Your task to perform on an android device: Look up the best rated Nike shoes on Nike.com Image 0: 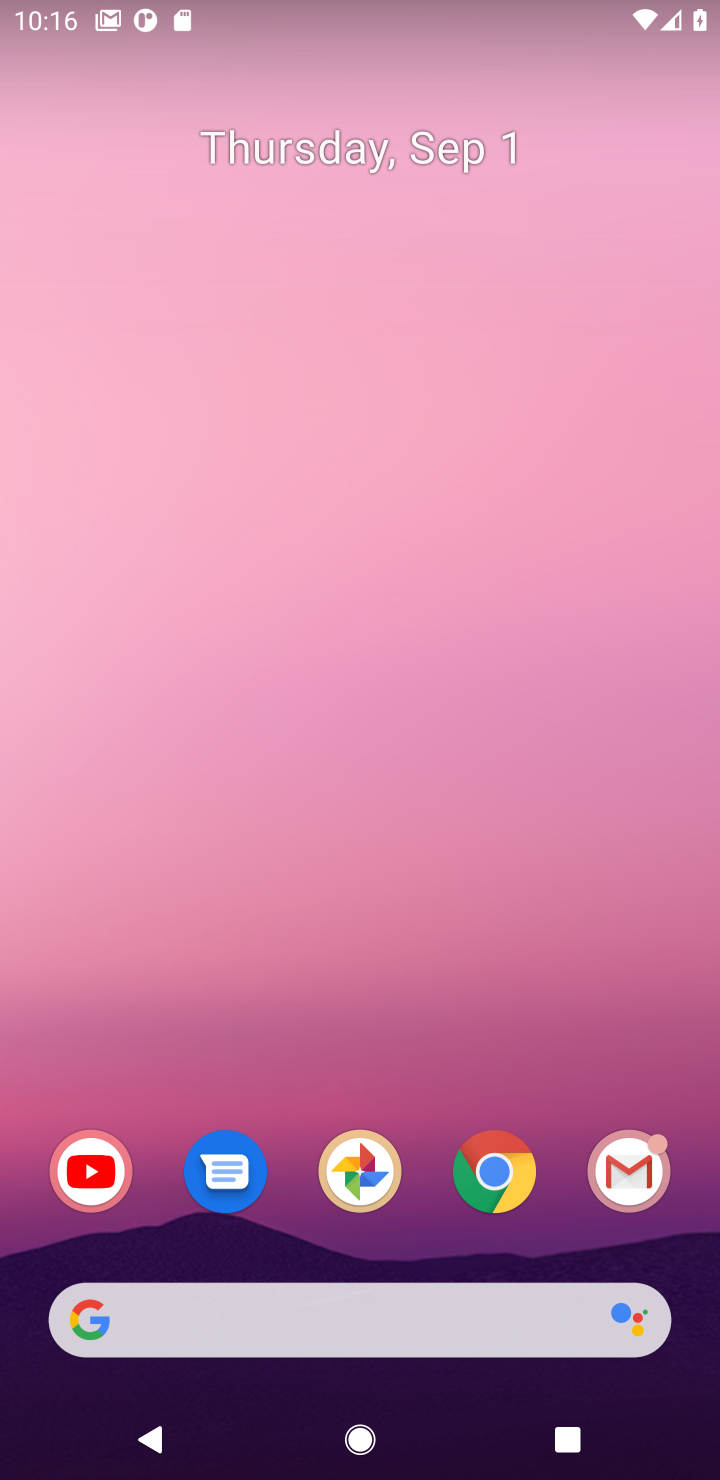
Step 0: press home button
Your task to perform on an android device: Look up the best rated Nike shoes on Nike.com Image 1: 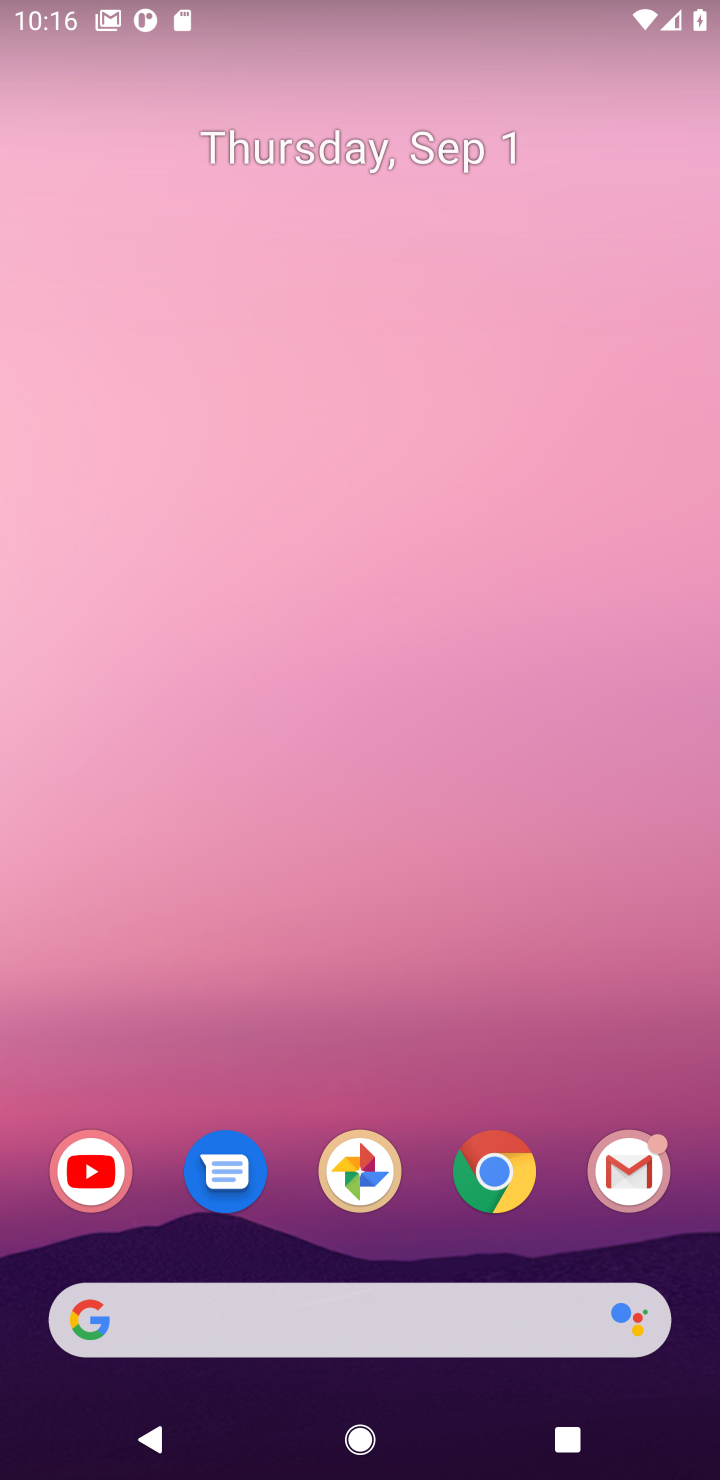
Step 1: click (302, 958)
Your task to perform on an android device: Look up the best rated Nike shoes on Nike.com Image 2: 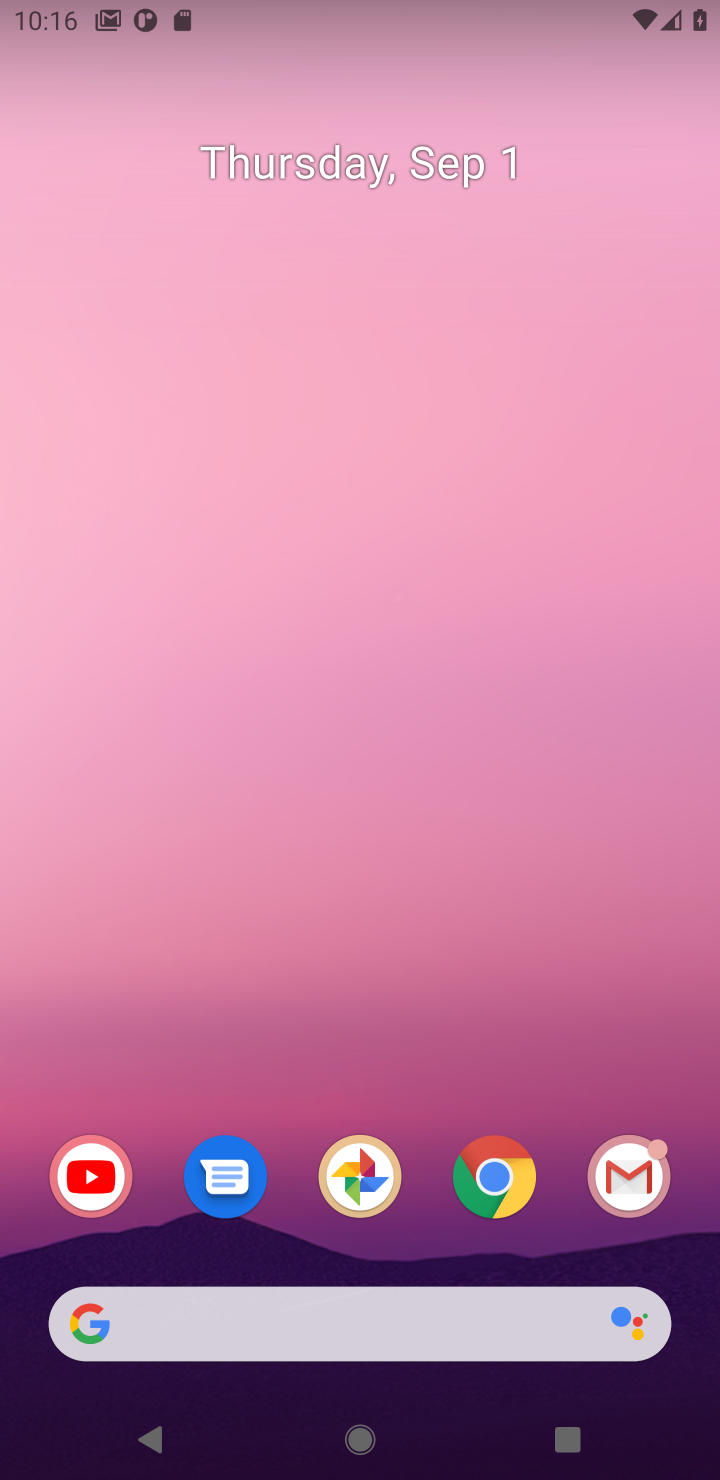
Step 2: press home button
Your task to perform on an android device: Look up the best rated Nike shoes on Nike.com Image 3: 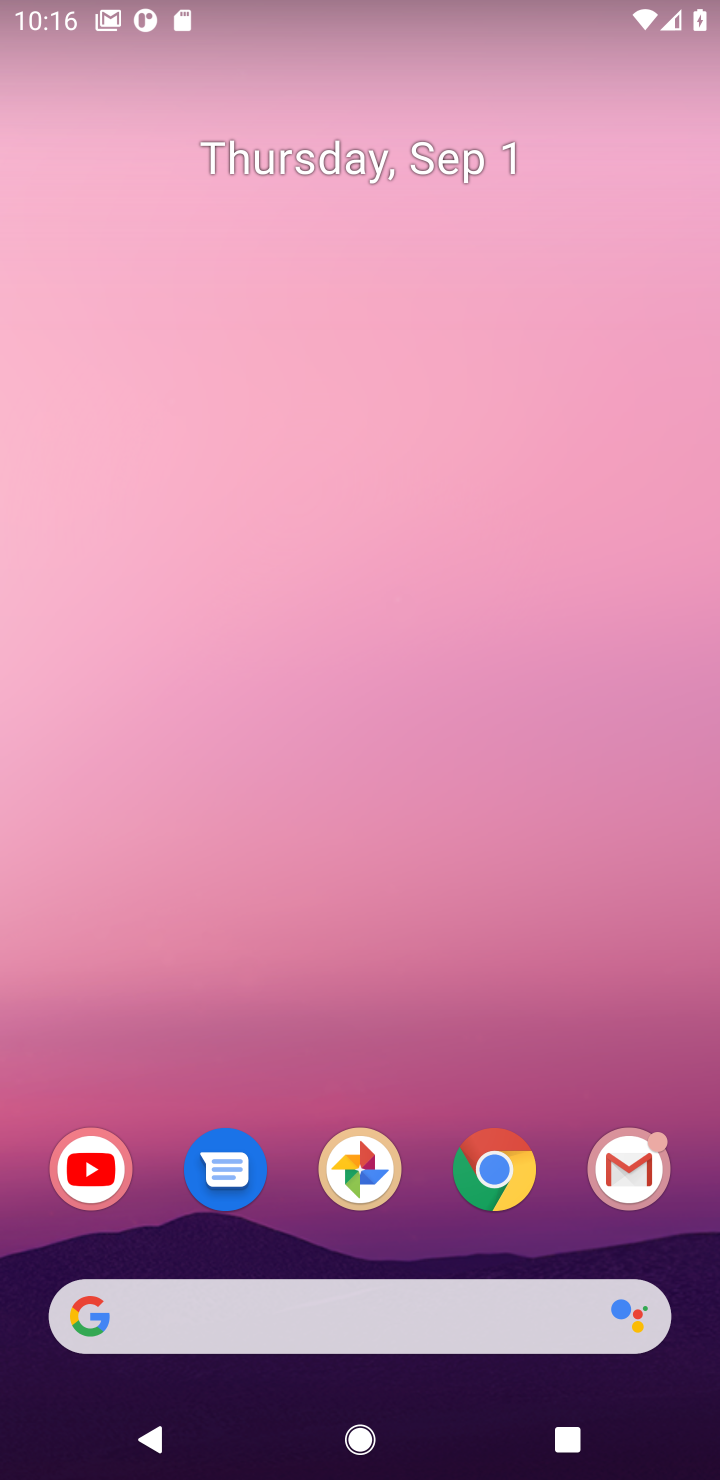
Step 3: drag from (405, 1137) to (395, 18)
Your task to perform on an android device: Look up the best rated Nike shoes on Nike.com Image 4: 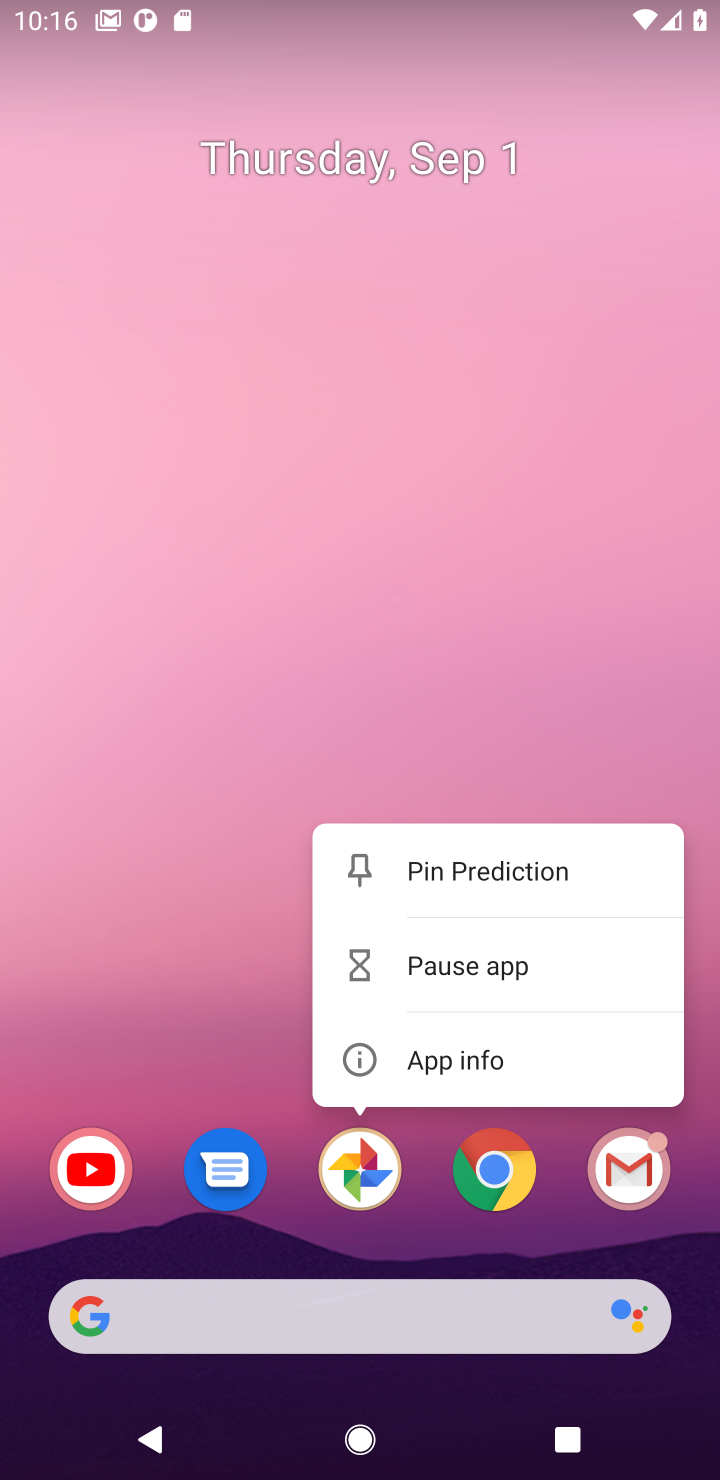
Step 4: click (232, 1084)
Your task to perform on an android device: Look up the best rated Nike shoes on Nike.com Image 5: 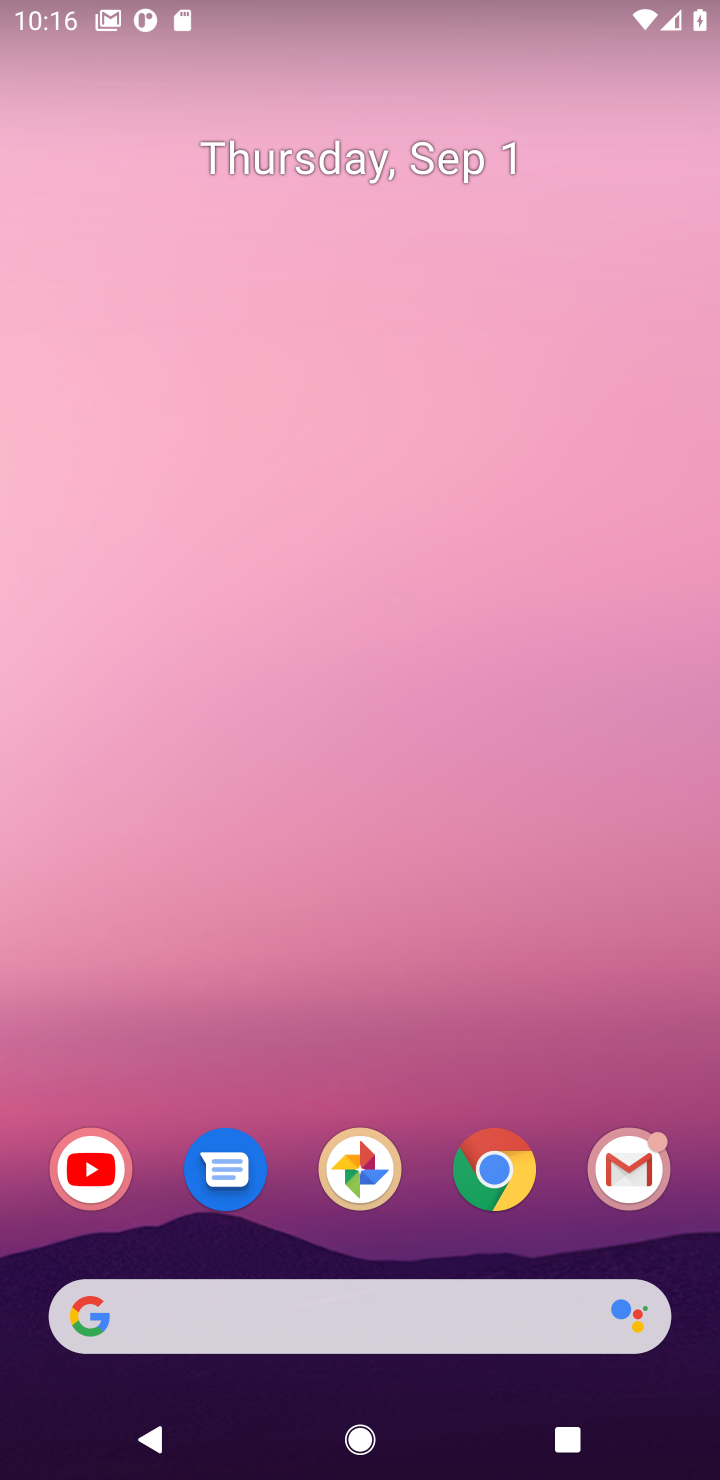
Step 5: drag from (438, 851) to (436, 89)
Your task to perform on an android device: Look up the best rated Nike shoes on Nike.com Image 6: 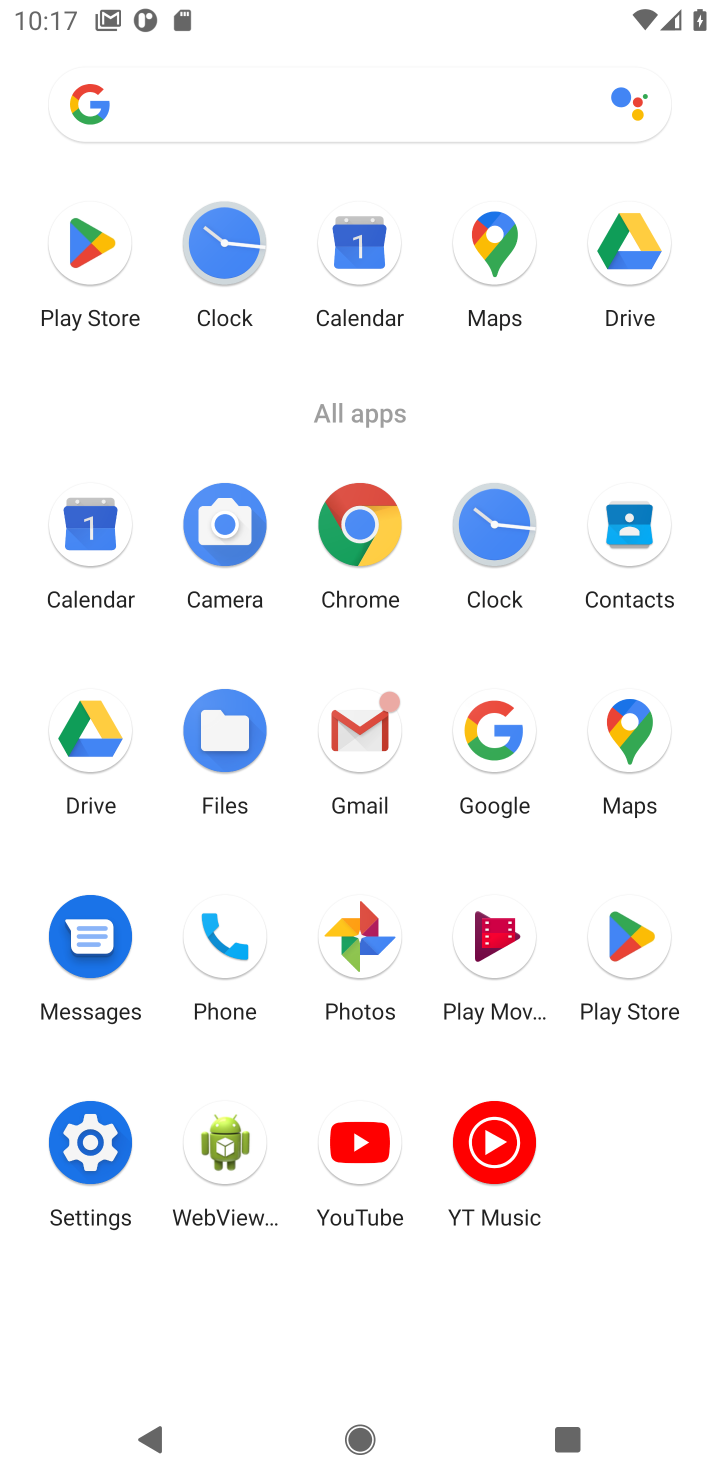
Step 6: click (363, 521)
Your task to perform on an android device: Look up the best rated Nike shoes on Nike.com Image 7: 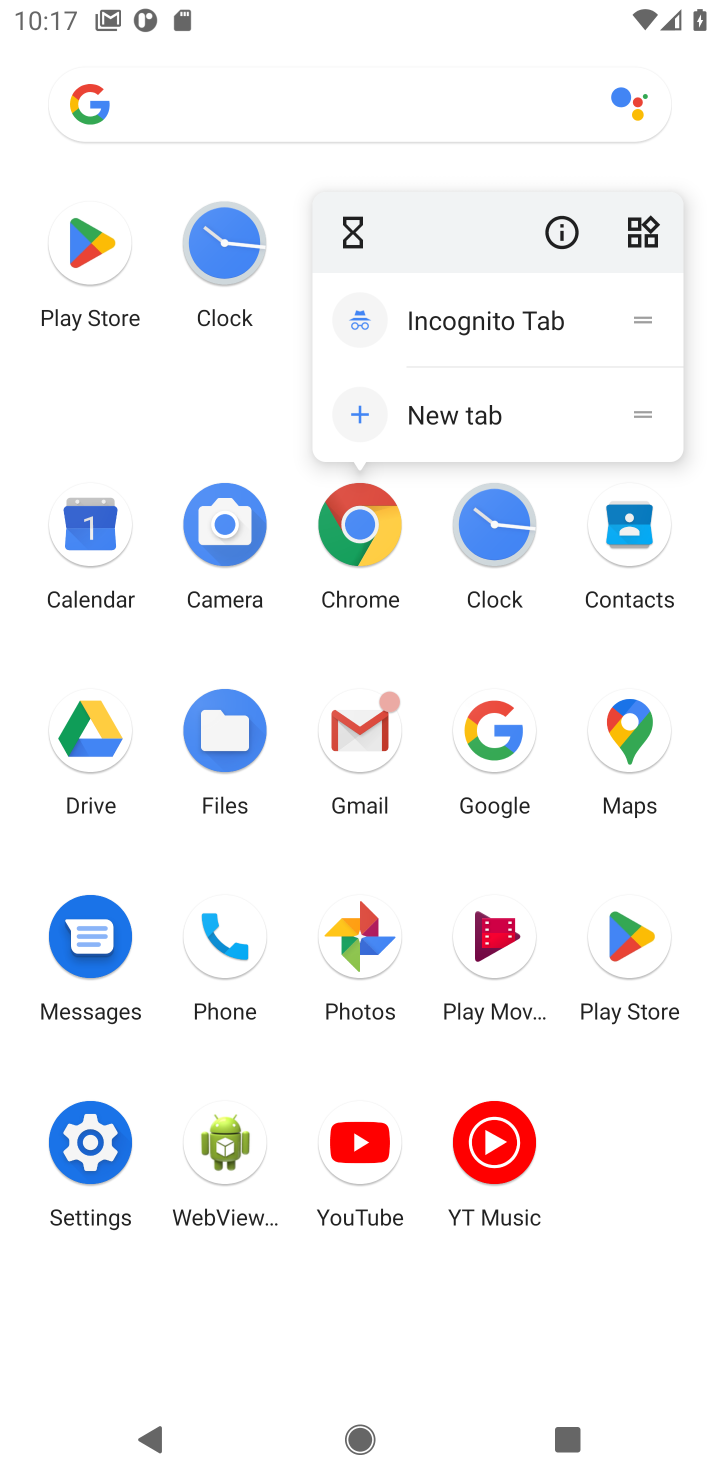
Step 7: click (361, 518)
Your task to perform on an android device: Look up the best rated Nike shoes on Nike.com Image 8: 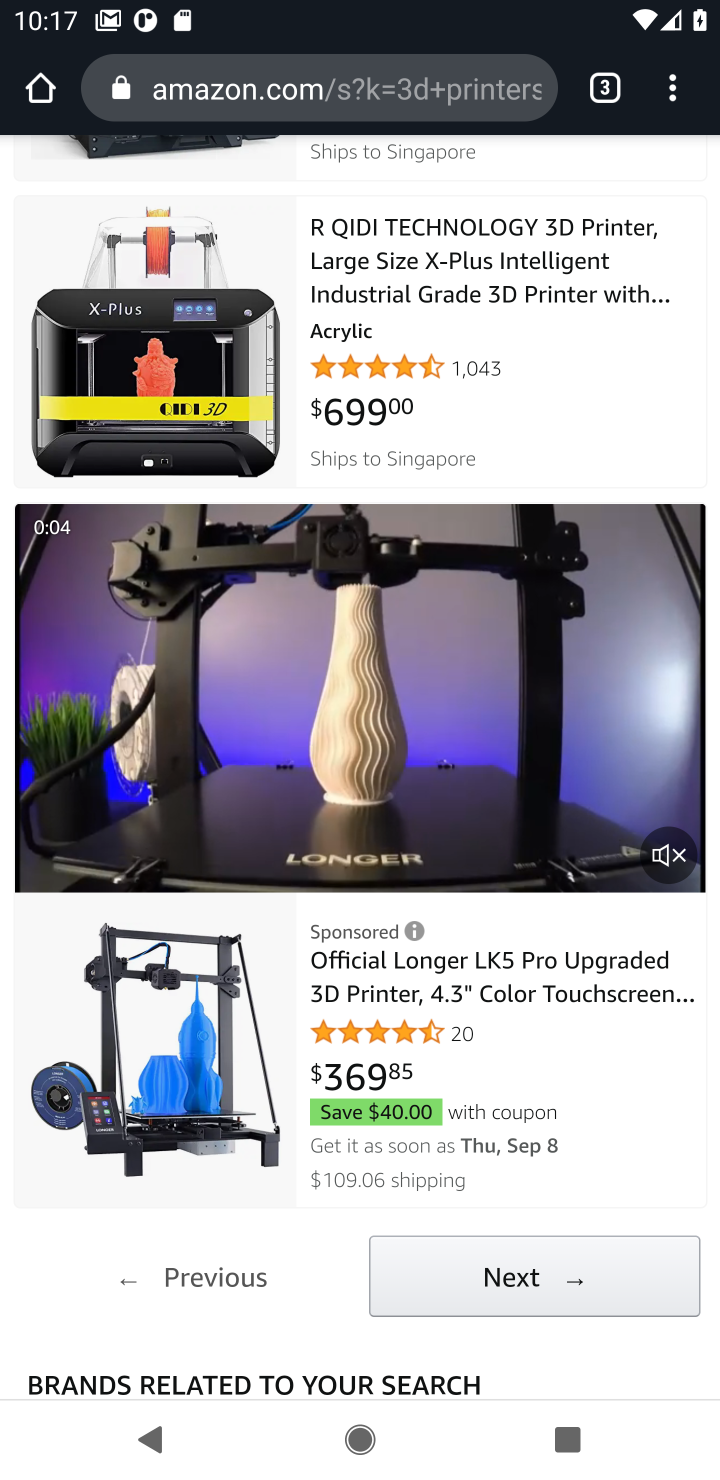
Step 8: click (409, 75)
Your task to perform on an android device: Look up the best rated Nike shoes on Nike.com Image 9: 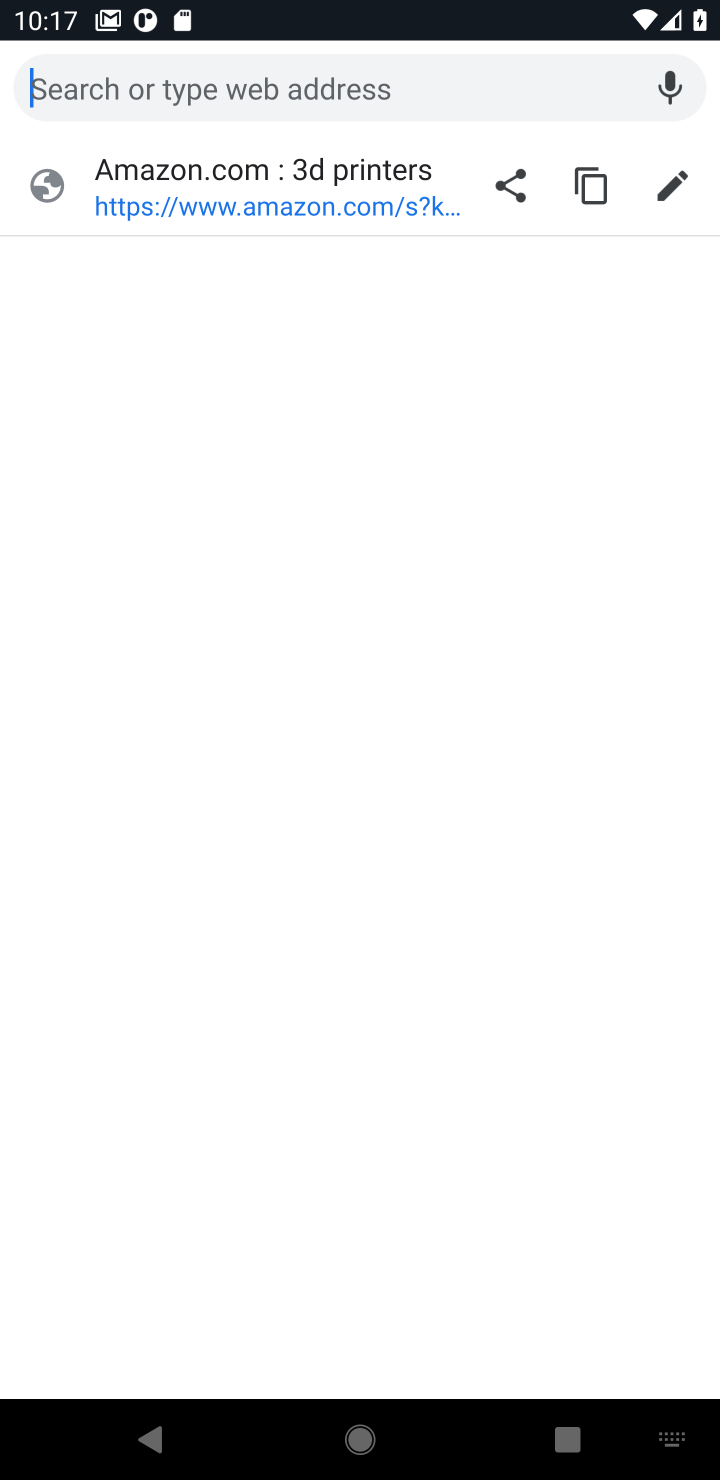
Step 9: type "Nike shoes on Nike.com"
Your task to perform on an android device: Look up the best rated Nike shoes on Nike.com Image 10: 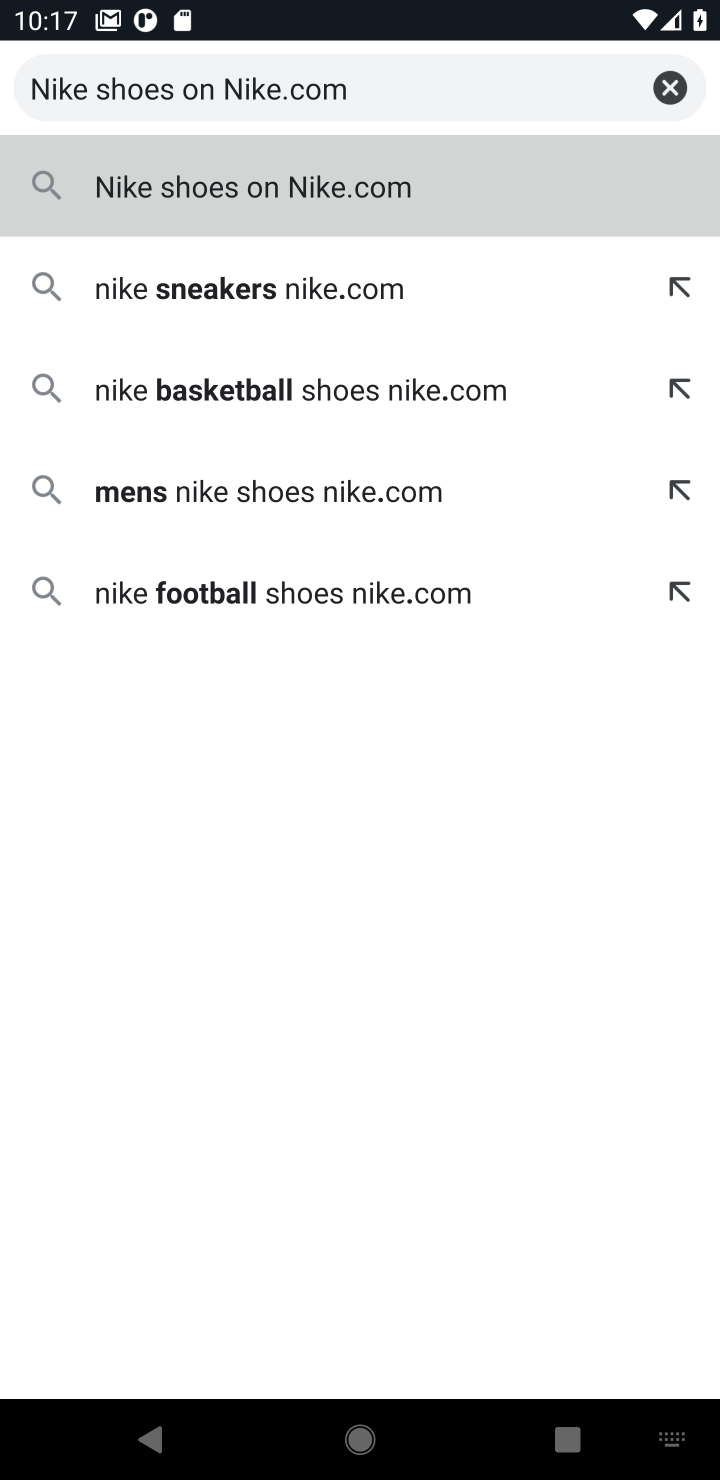
Step 10: type ""
Your task to perform on an android device: Look up the best rated Nike shoes on Nike.com Image 11: 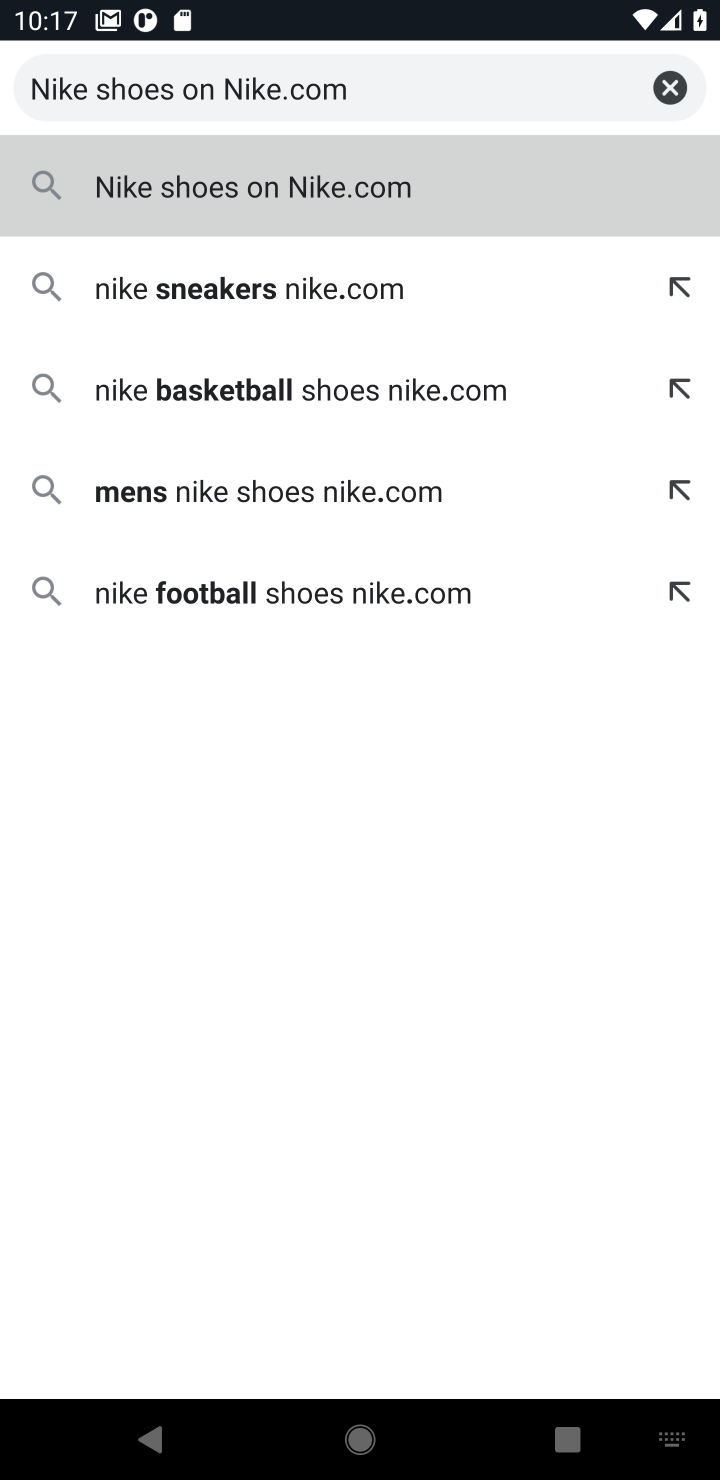
Step 11: click (255, 194)
Your task to perform on an android device: Look up the best rated Nike shoes on Nike.com Image 12: 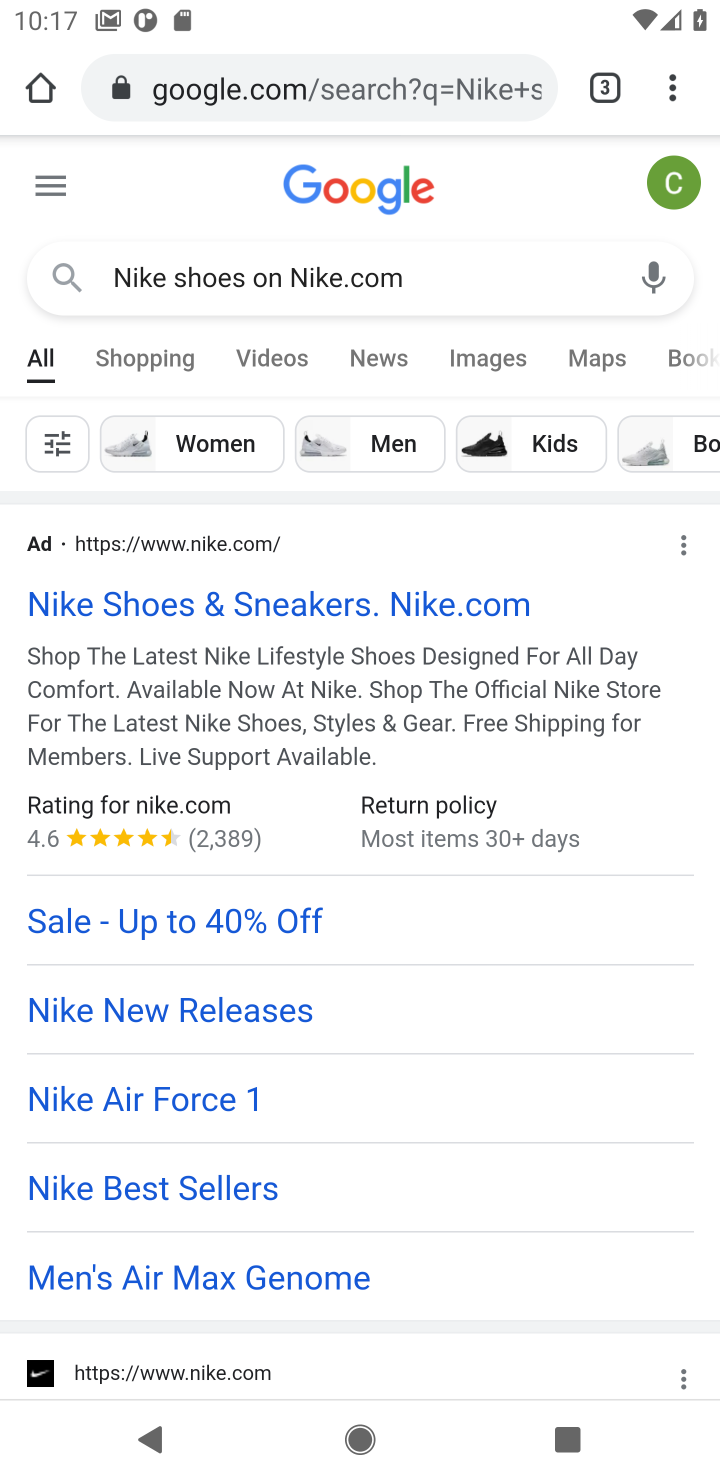
Step 12: click (301, 603)
Your task to perform on an android device: Look up the best rated Nike shoes on Nike.com Image 13: 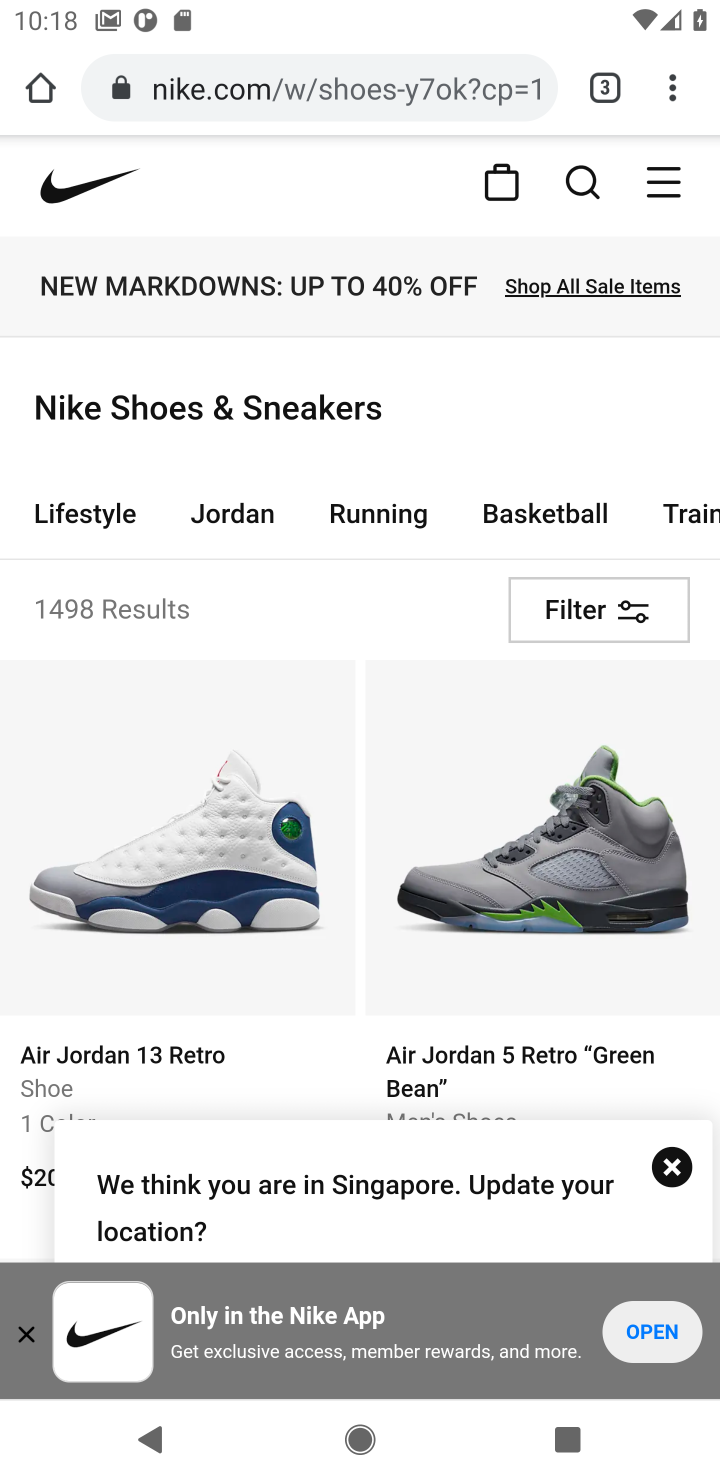
Step 13: drag from (364, 1046) to (355, 191)
Your task to perform on an android device: Look up the best rated Nike shoes on Nike.com Image 14: 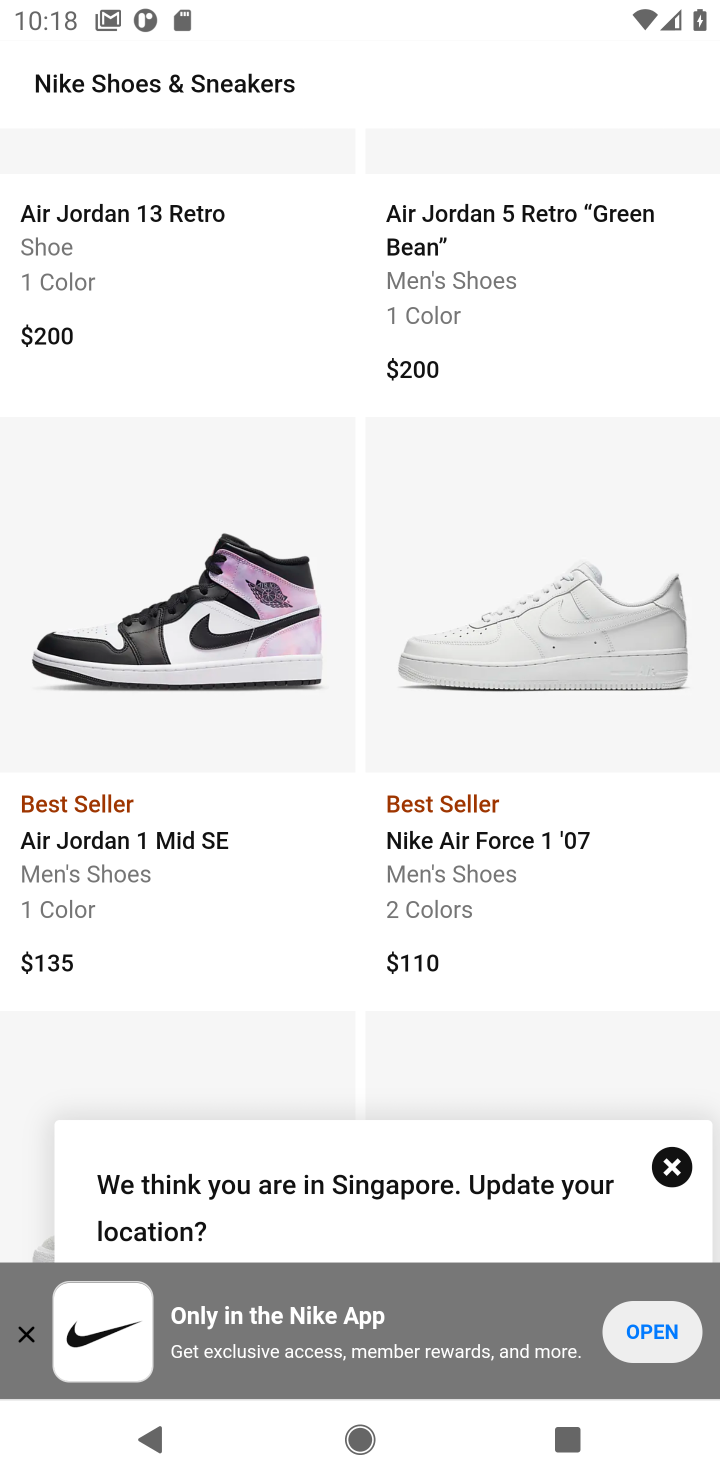
Step 14: drag from (365, 1002) to (426, 239)
Your task to perform on an android device: Look up the best rated Nike shoes on Nike.com Image 15: 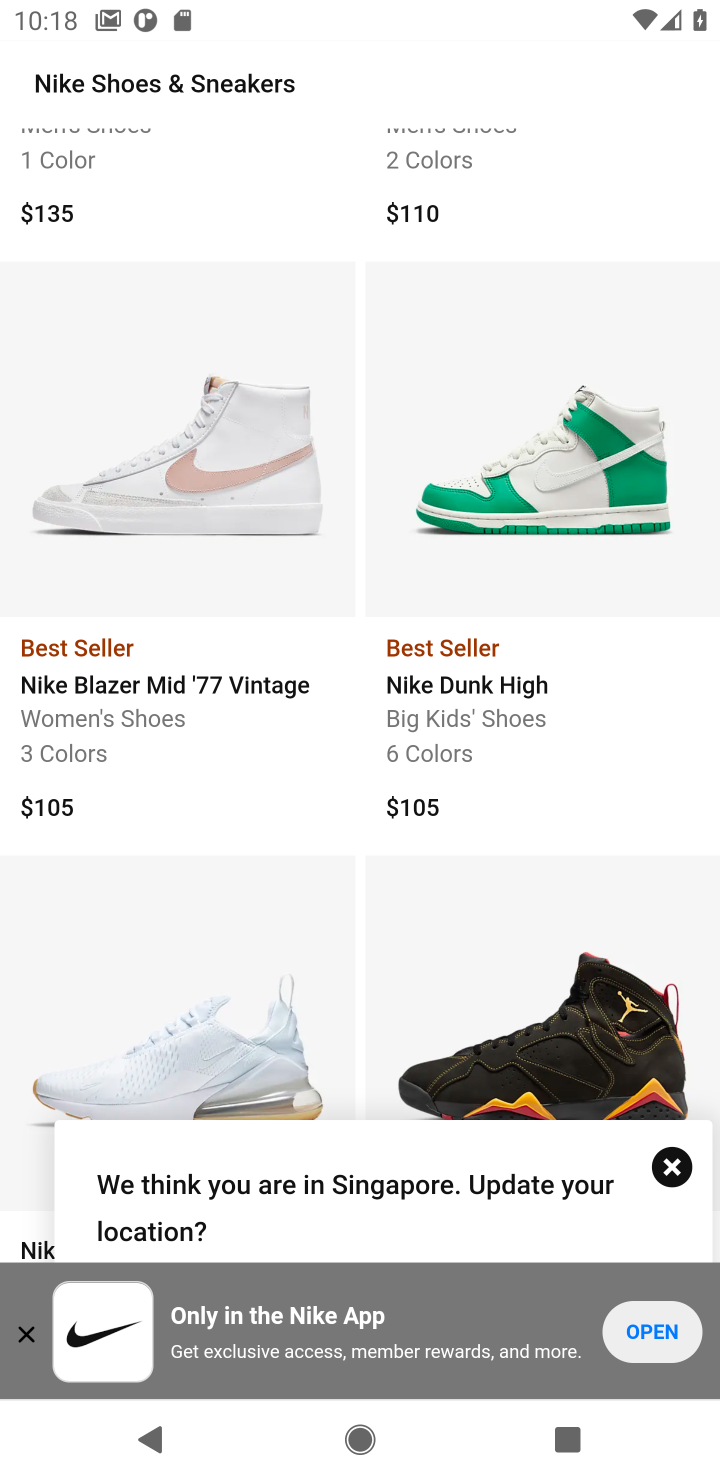
Step 15: drag from (359, 834) to (386, 400)
Your task to perform on an android device: Look up the best rated Nike shoes on Nike.com Image 16: 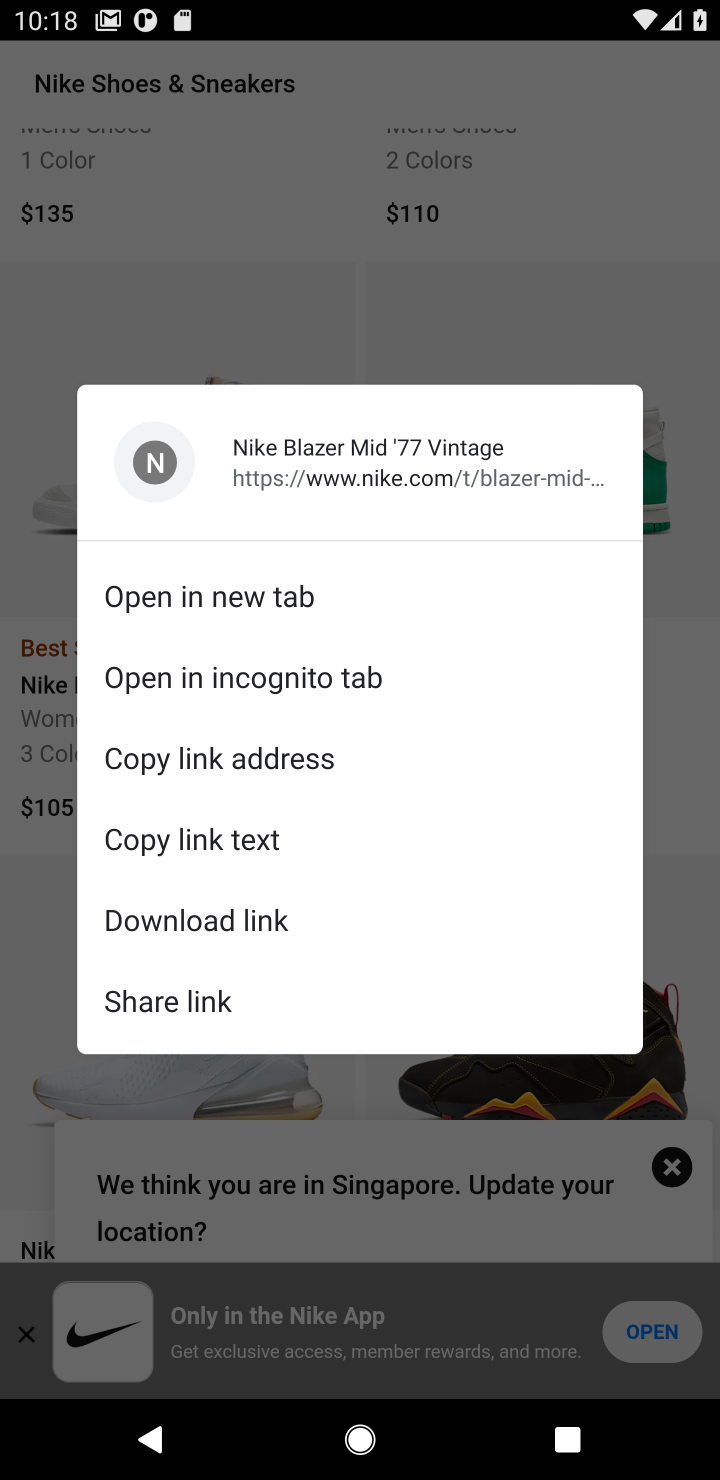
Step 16: click (148, 286)
Your task to perform on an android device: Look up the best rated Nike shoes on Nike.com Image 17: 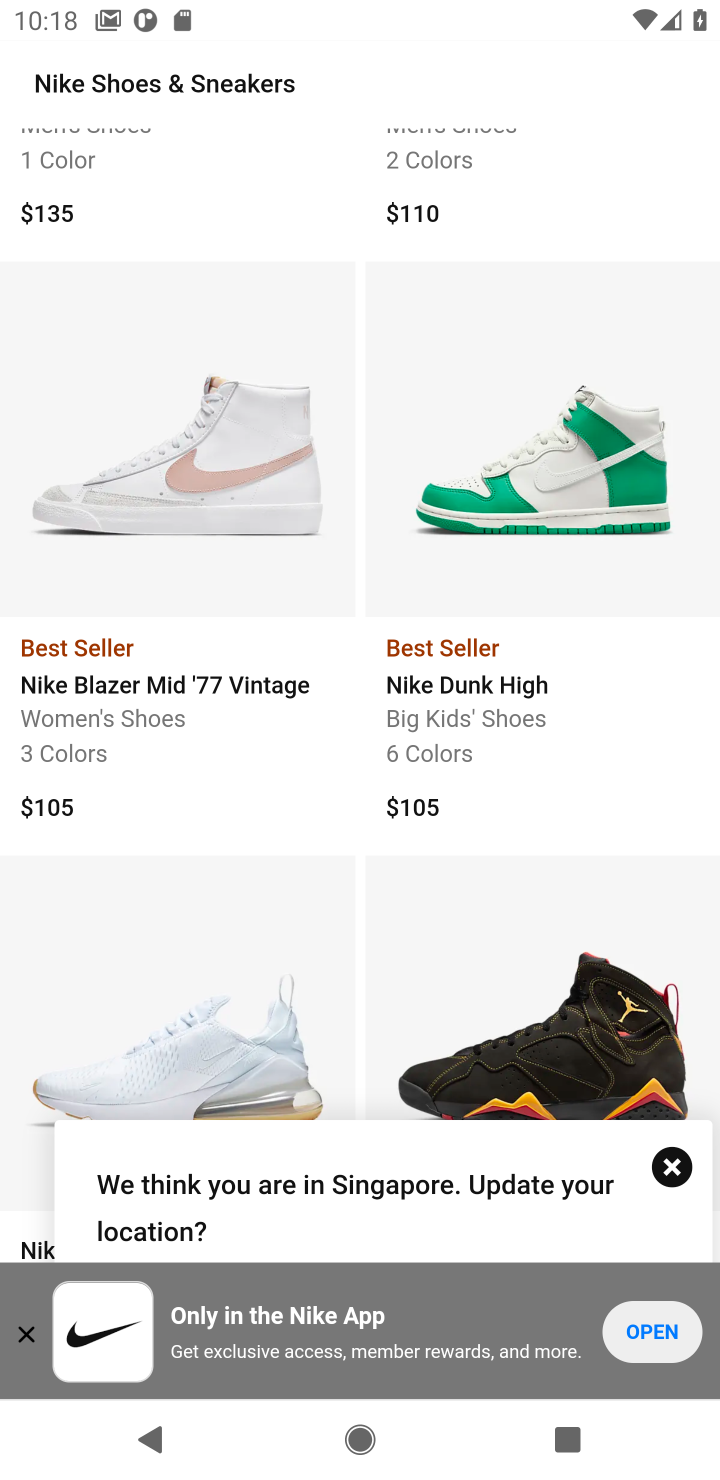
Step 17: task complete